Your task to perform on an android device: Open settings on Google Maps Image 0: 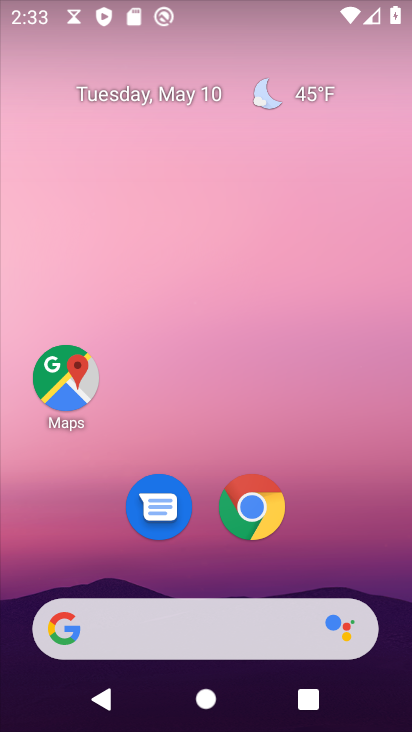
Step 0: click (62, 384)
Your task to perform on an android device: Open settings on Google Maps Image 1: 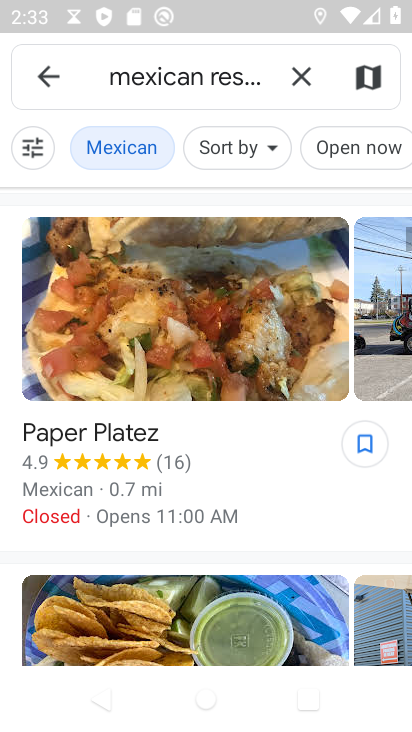
Step 1: press back button
Your task to perform on an android device: Open settings on Google Maps Image 2: 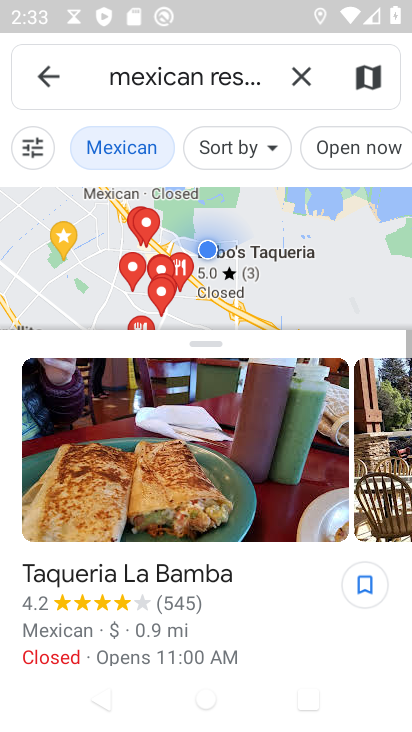
Step 2: press back button
Your task to perform on an android device: Open settings on Google Maps Image 3: 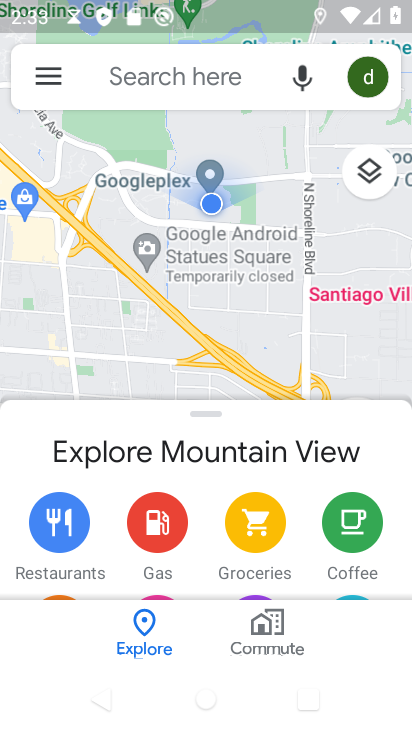
Step 3: click (54, 74)
Your task to perform on an android device: Open settings on Google Maps Image 4: 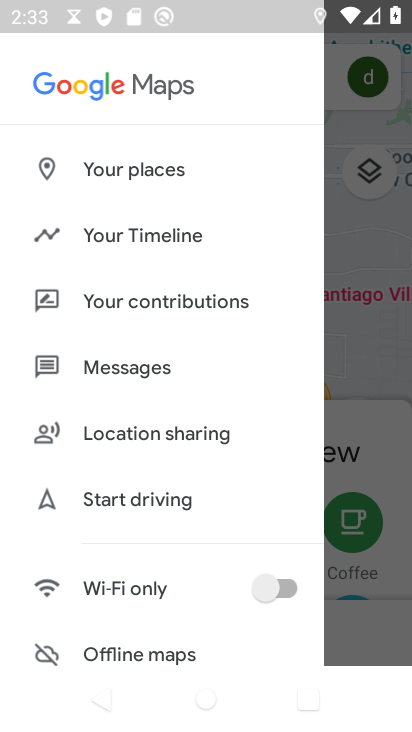
Step 4: drag from (130, 659) to (124, 242)
Your task to perform on an android device: Open settings on Google Maps Image 5: 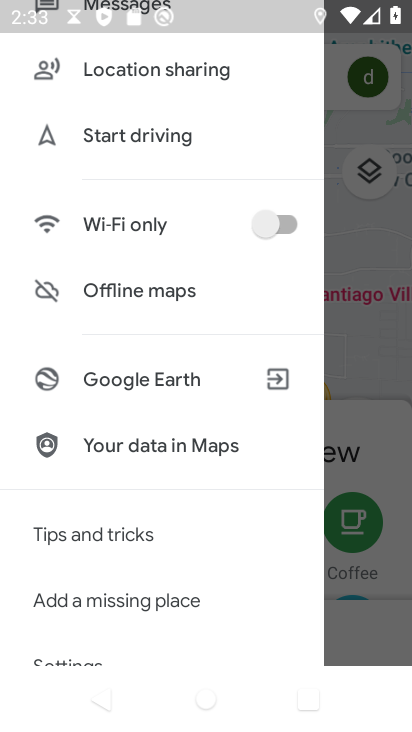
Step 5: drag from (103, 640) to (123, 352)
Your task to perform on an android device: Open settings on Google Maps Image 6: 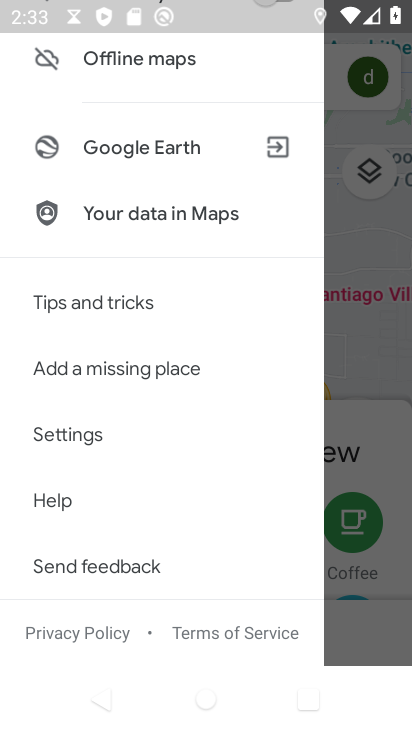
Step 6: click (74, 437)
Your task to perform on an android device: Open settings on Google Maps Image 7: 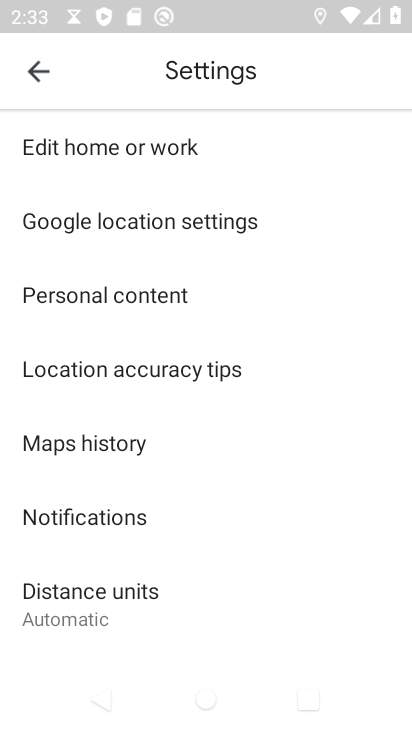
Step 7: task complete